Your task to perform on an android device: open chrome privacy settings Image 0: 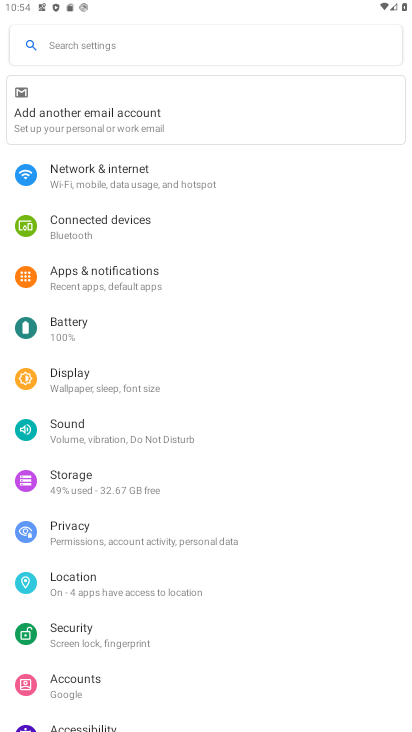
Step 0: press back button
Your task to perform on an android device: open chrome privacy settings Image 1: 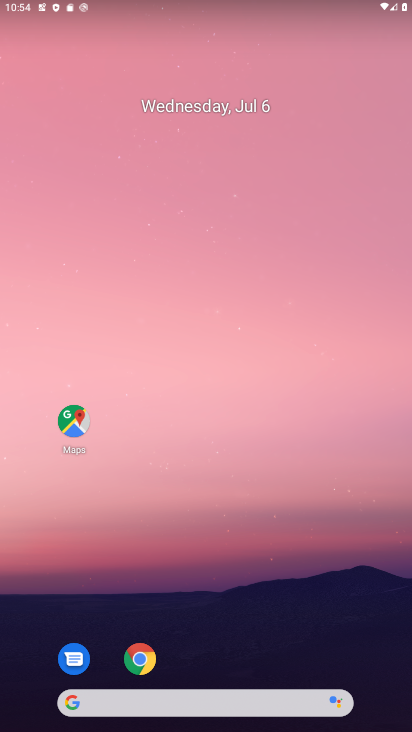
Step 1: drag from (204, 632) to (253, 11)
Your task to perform on an android device: open chrome privacy settings Image 2: 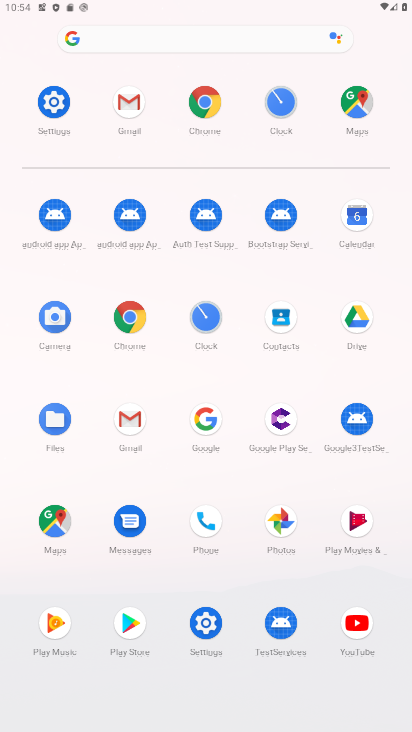
Step 2: click (207, 95)
Your task to perform on an android device: open chrome privacy settings Image 3: 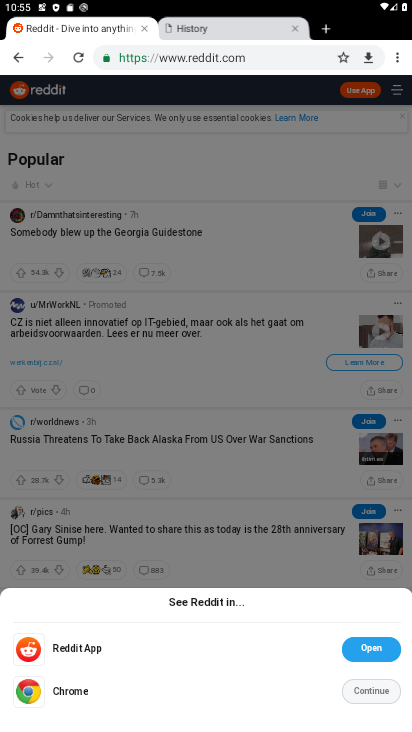
Step 3: drag from (400, 58) to (300, 378)
Your task to perform on an android device: open chrome privacy settings Image 4: 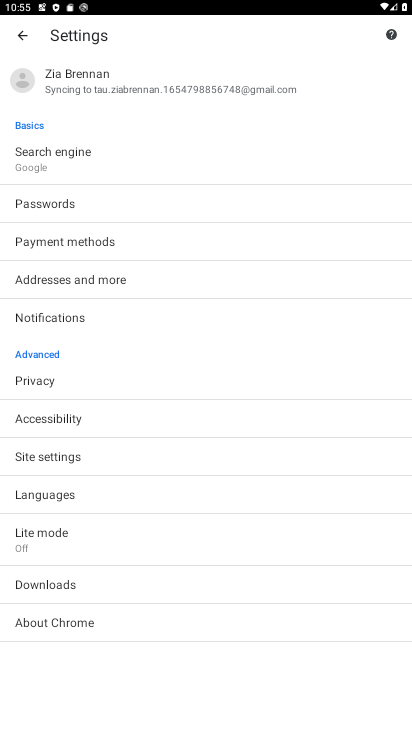
Step 4: click (41, 380)
Your task to perform on an android device: open chrome privacy settings Image 5: 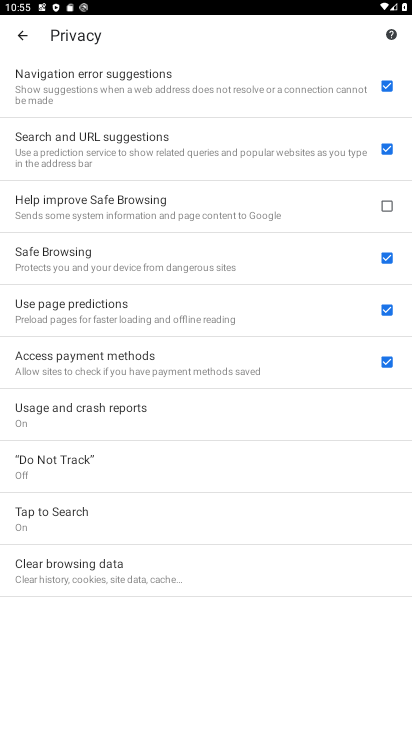
Step 5: task complete